Your task to perform on an android device: open app "NewsBreak: Local News & Alerts" (install if not already installed) Image 0: 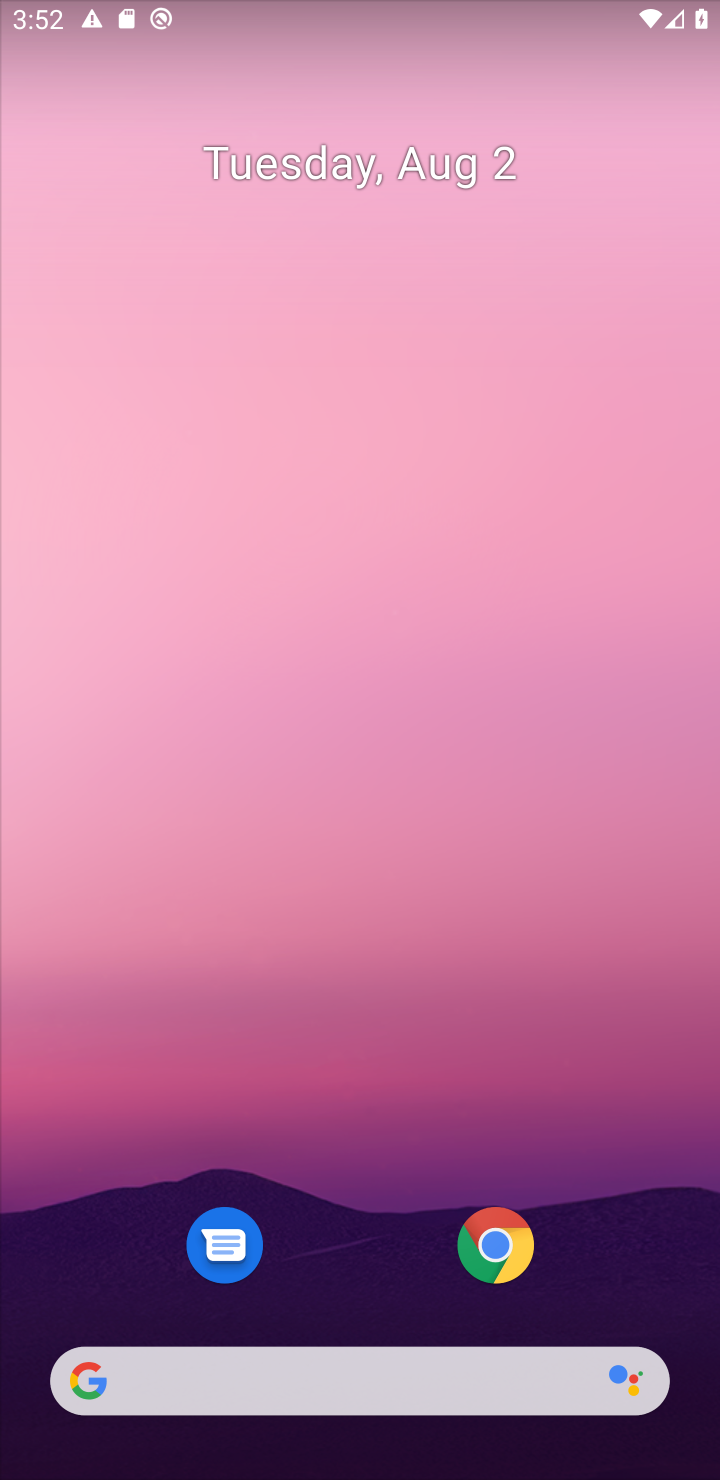
Step 0: drag from (372, 1265) to (420, 89)
Your task to perform on an android device: open app "NewsBreak: Local News & Alerts" (install if not already installed) Image 1: 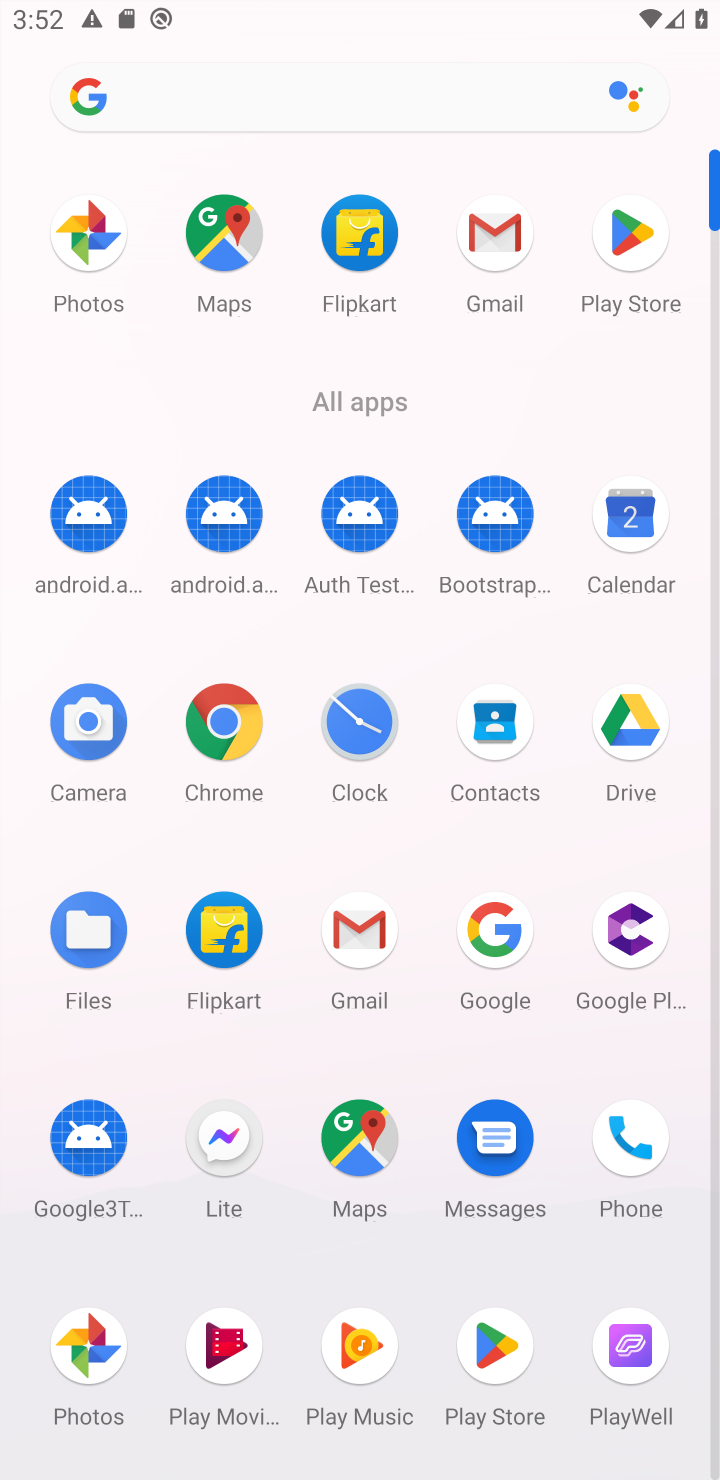
Step 1: click (610, 232)
Your task to perform on an android device: open app "NewsBreak: Local News & Alerts" (install if not already installed) Image 2: 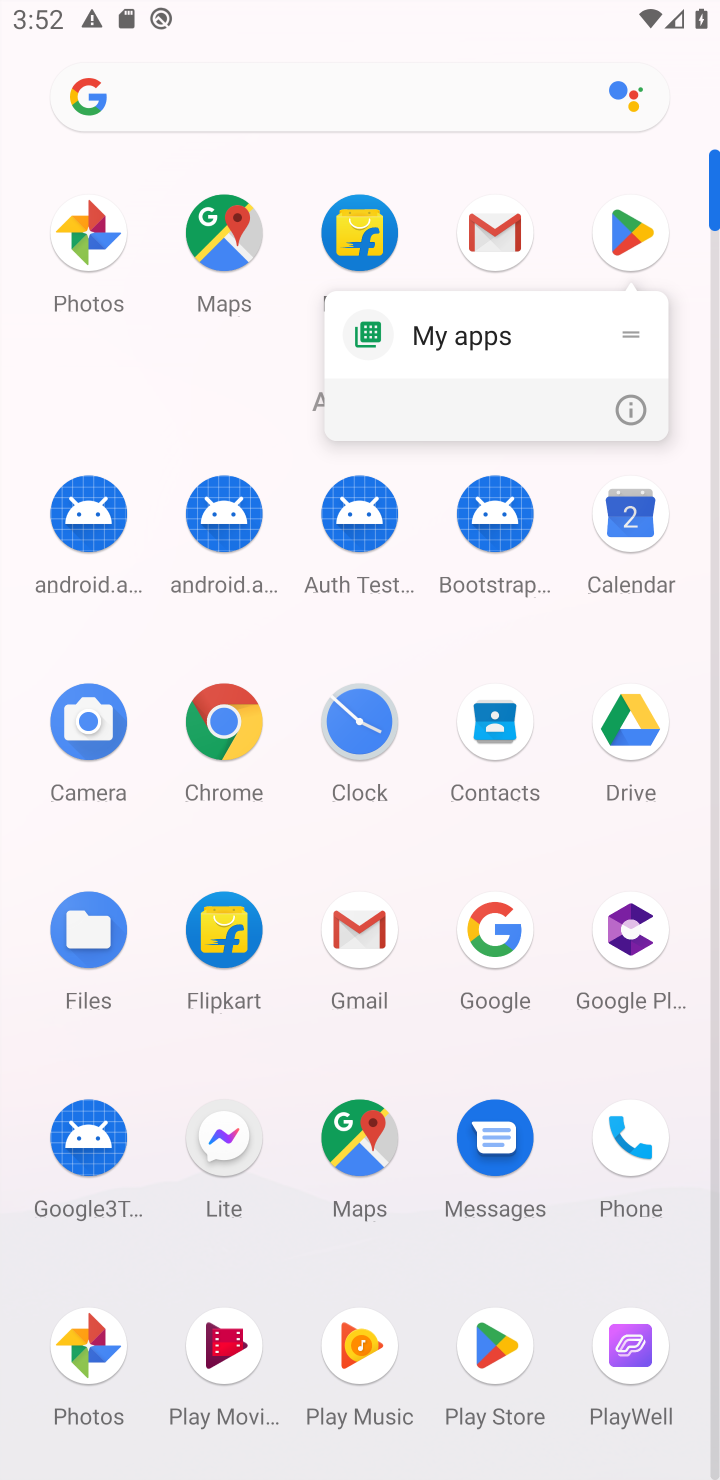
Step 2: click (615, 232)
Your task to perform on an android device: open app "NewsBreak: Local News & Alerts" (install if not already installed) Image 3: 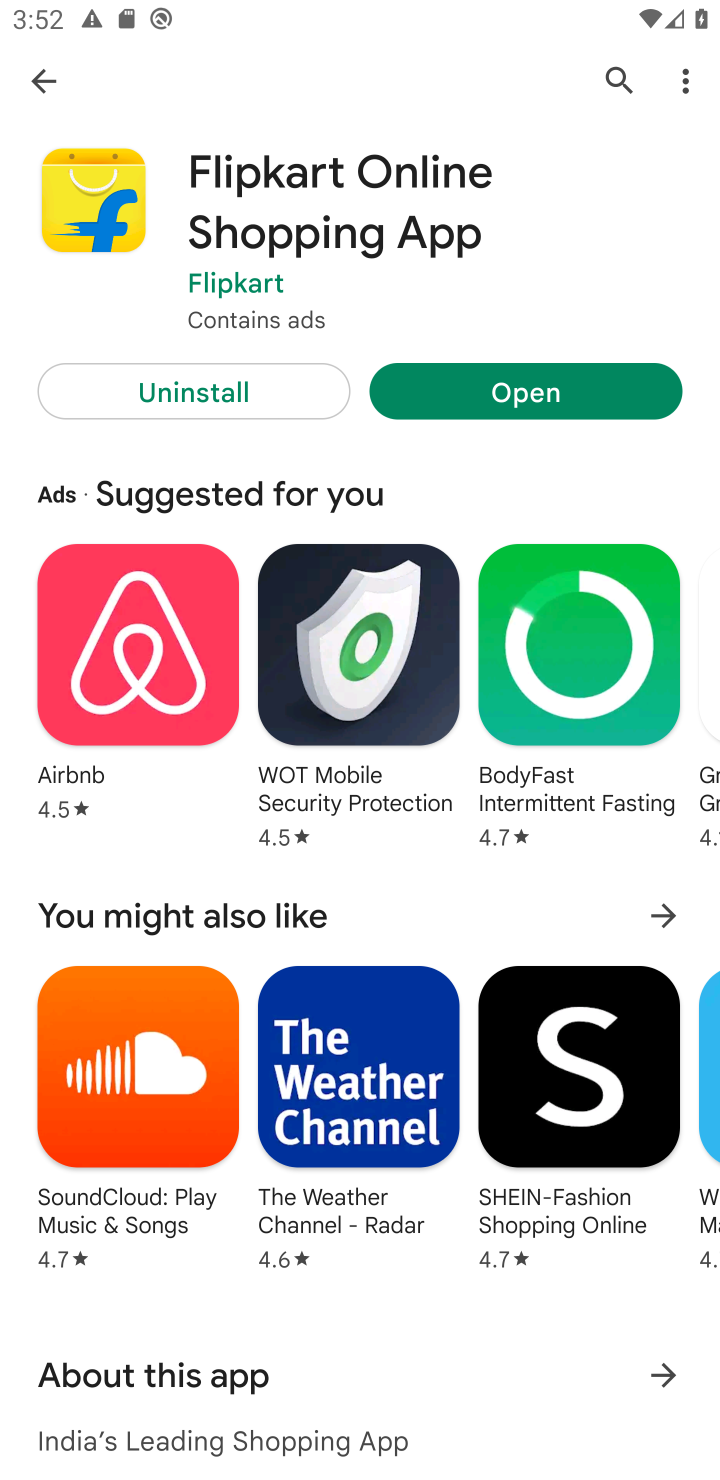
Step 3: click (606, 76)
Your task to perform on an android device: open app "NewsBreak: Local News & Alerts" (install if not already installed) Image 4: 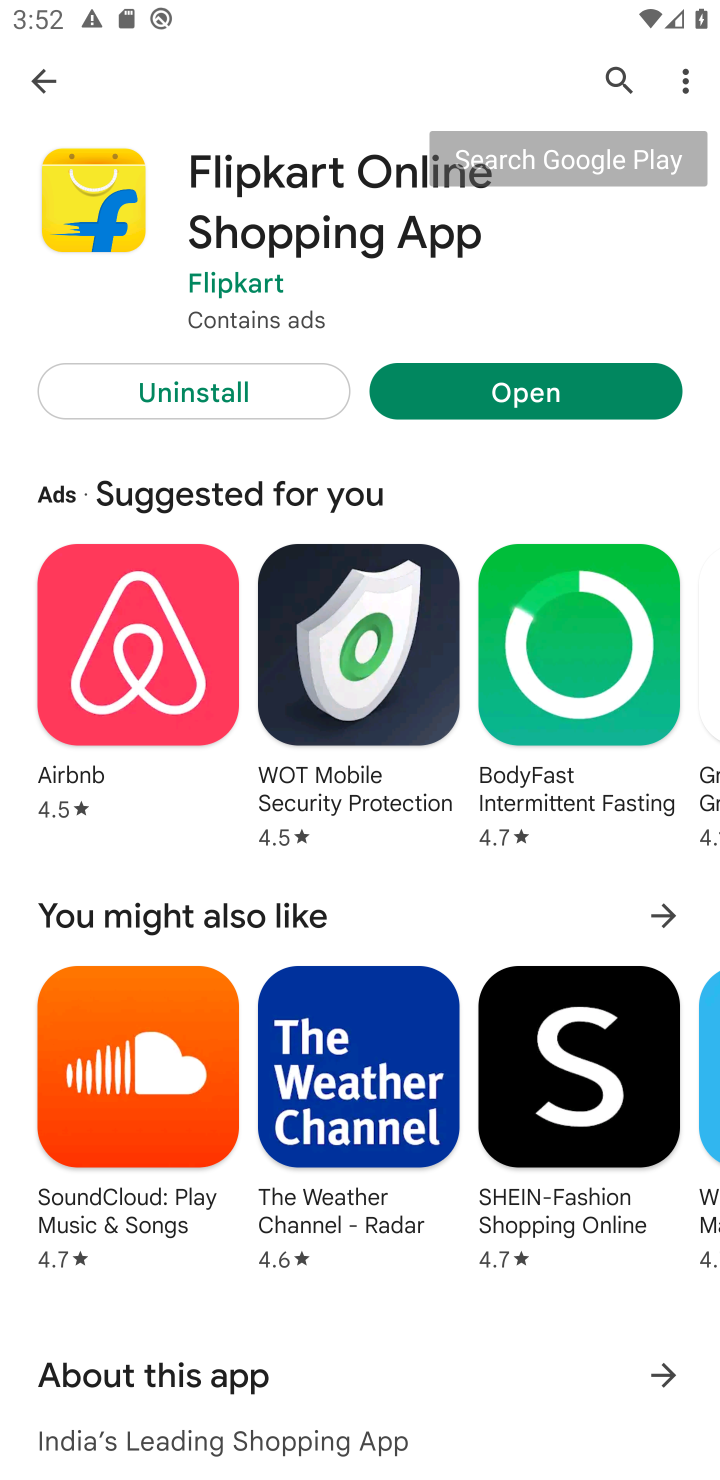
Step 4: click (610, 78)
Your task to perform on an android device: open app "NewsBreak: Local News & Alerts" (install if not already installed) Image 5: 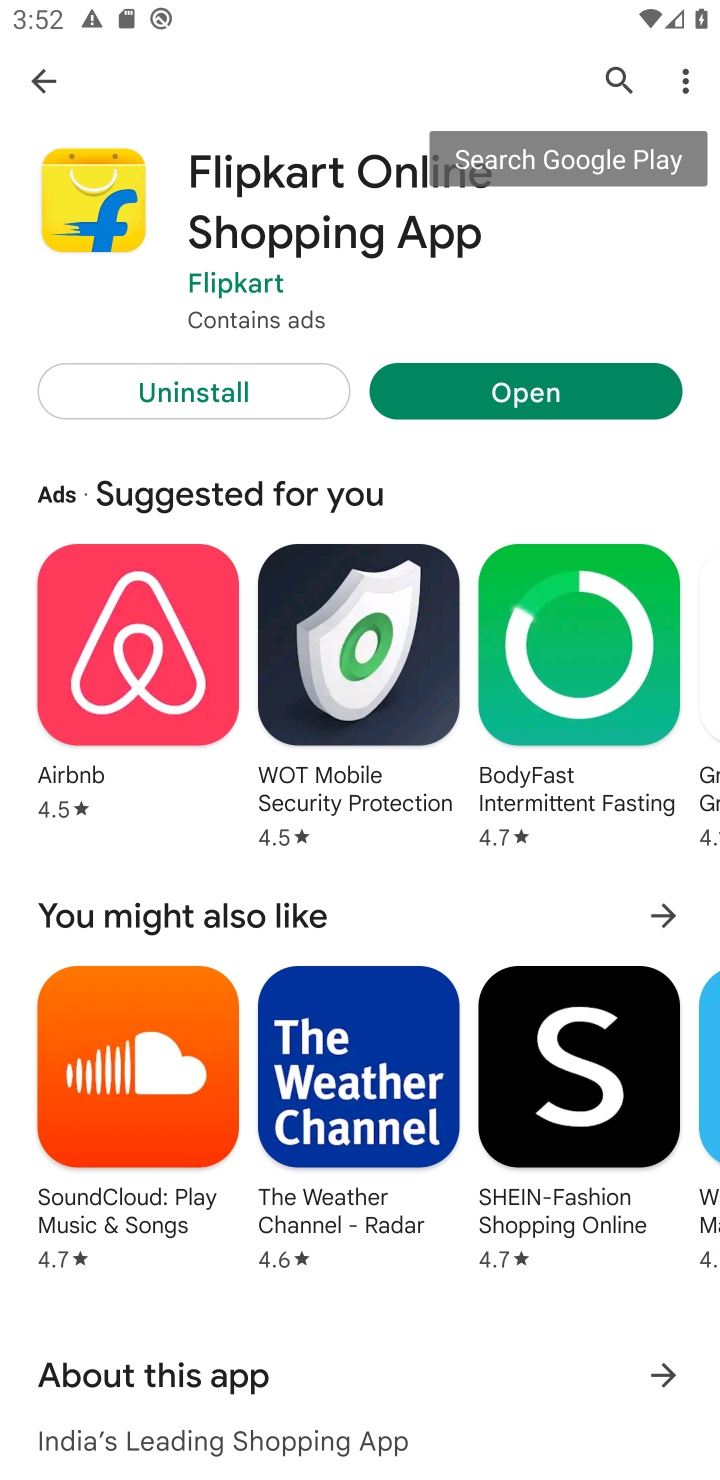
Step 5: click (619, 76)
Your task to perform on an android device: open app "NewsBreak: Local News & Alerts" (install if not already installed) Image 6: 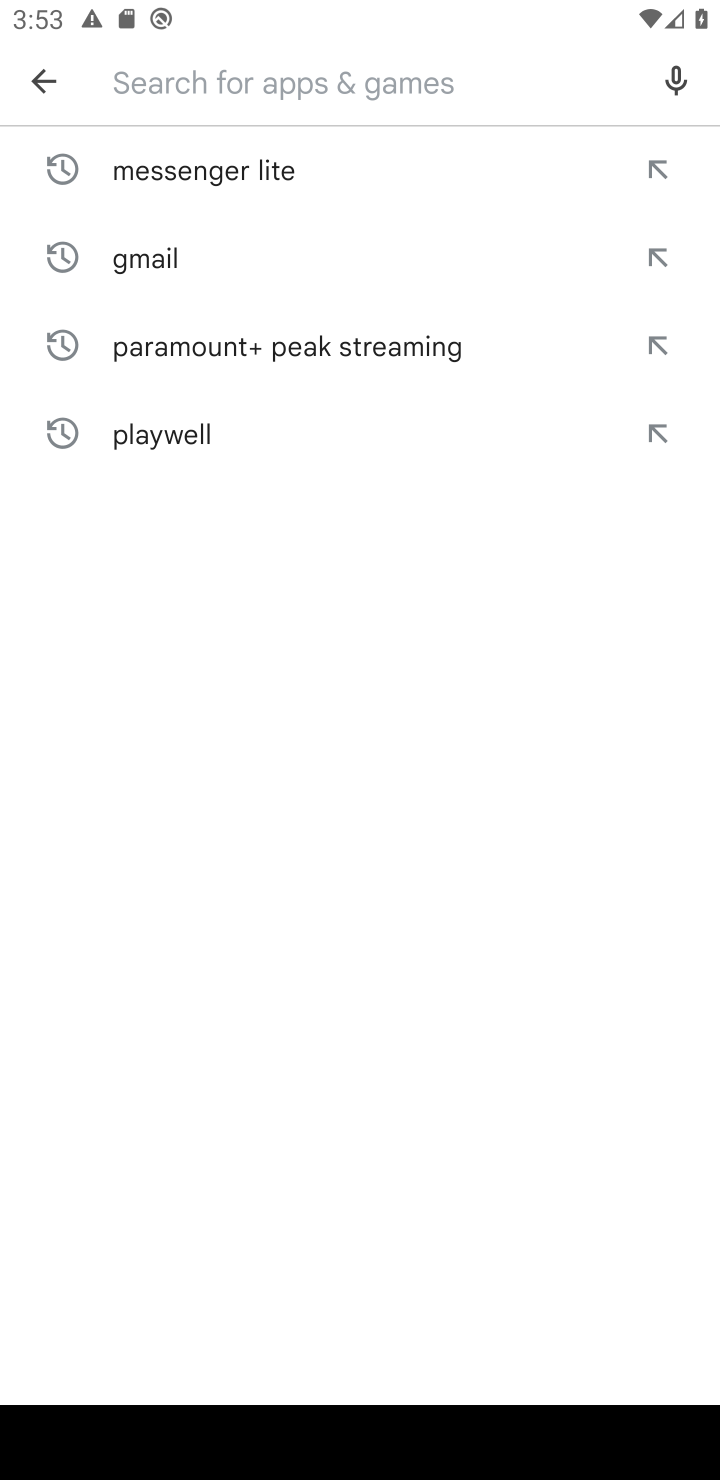
Step 6: type "NewsBreak: Local News & Alerts"
Your task to perform on an android device: open app "NewsBreak: Local News & Alerts" (install if not already installed) Image 7: 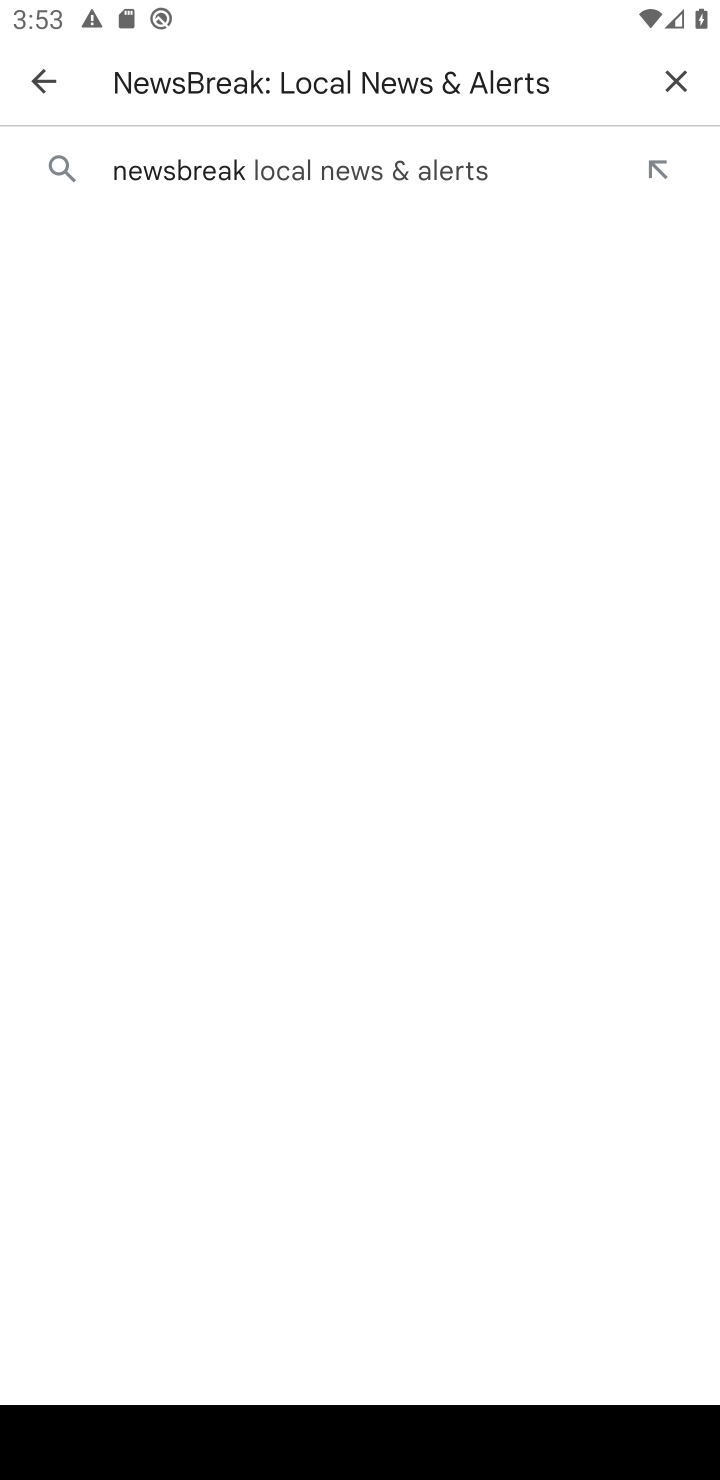
Step 7: click (261, 167)
Your task to perform on an android device: open app "NewsBreak: Local News & Alerts" (install if not already installed) Image 8: 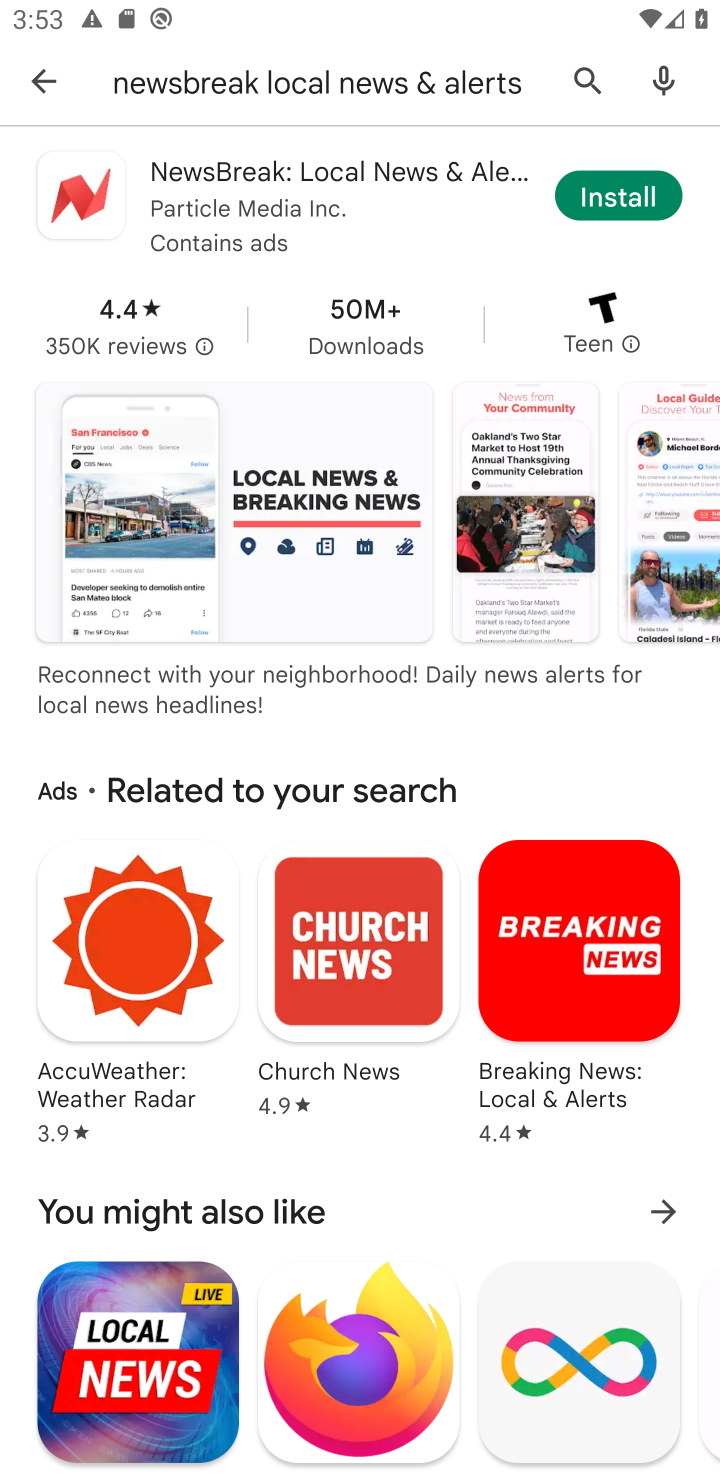
Step 8: click (617, 201)
Your task to perform on an android device: open app "NewsBreak: Local News & Alerts" (install if not already installed) Image 9: 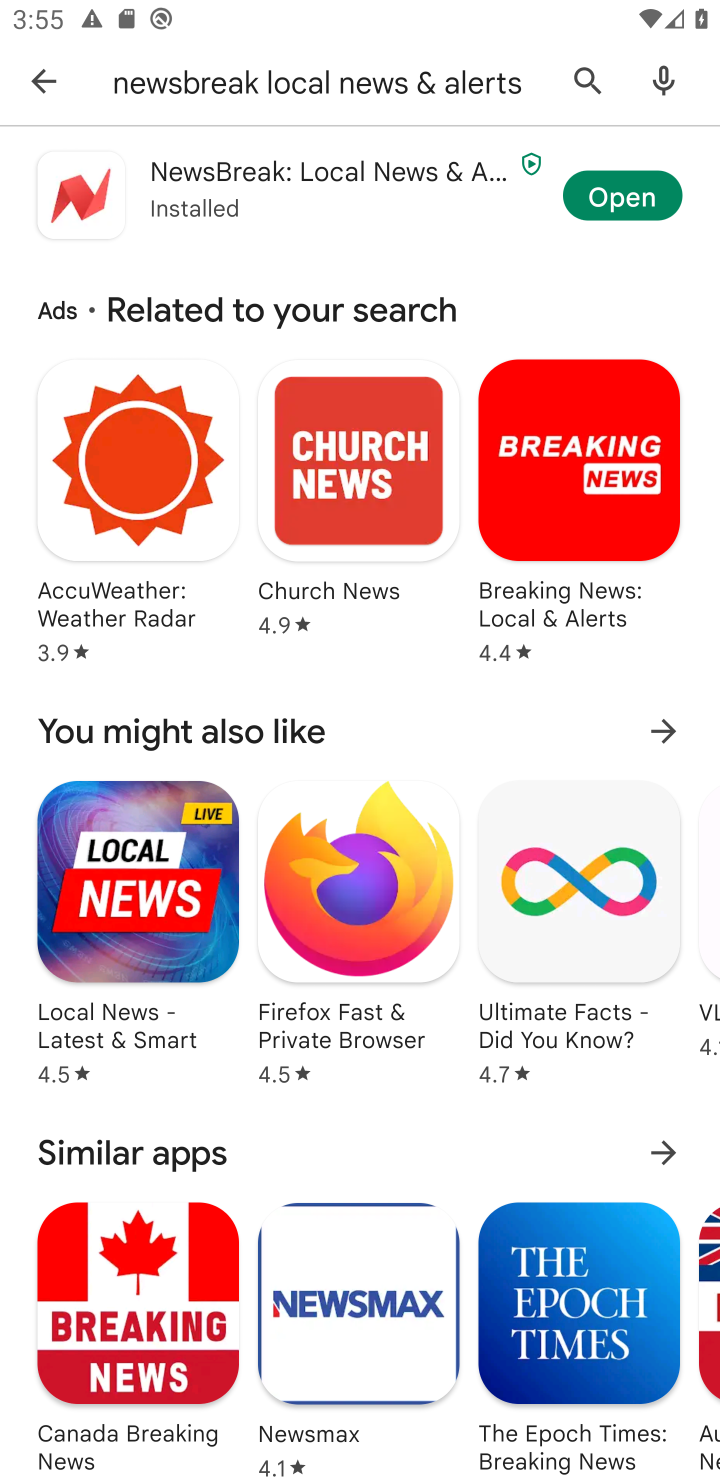
Step 9: click (617, 201)
Your task to perform on an android device: open app "NewsBreak: Local News & Alerts" (install if not already installed) Image 10: 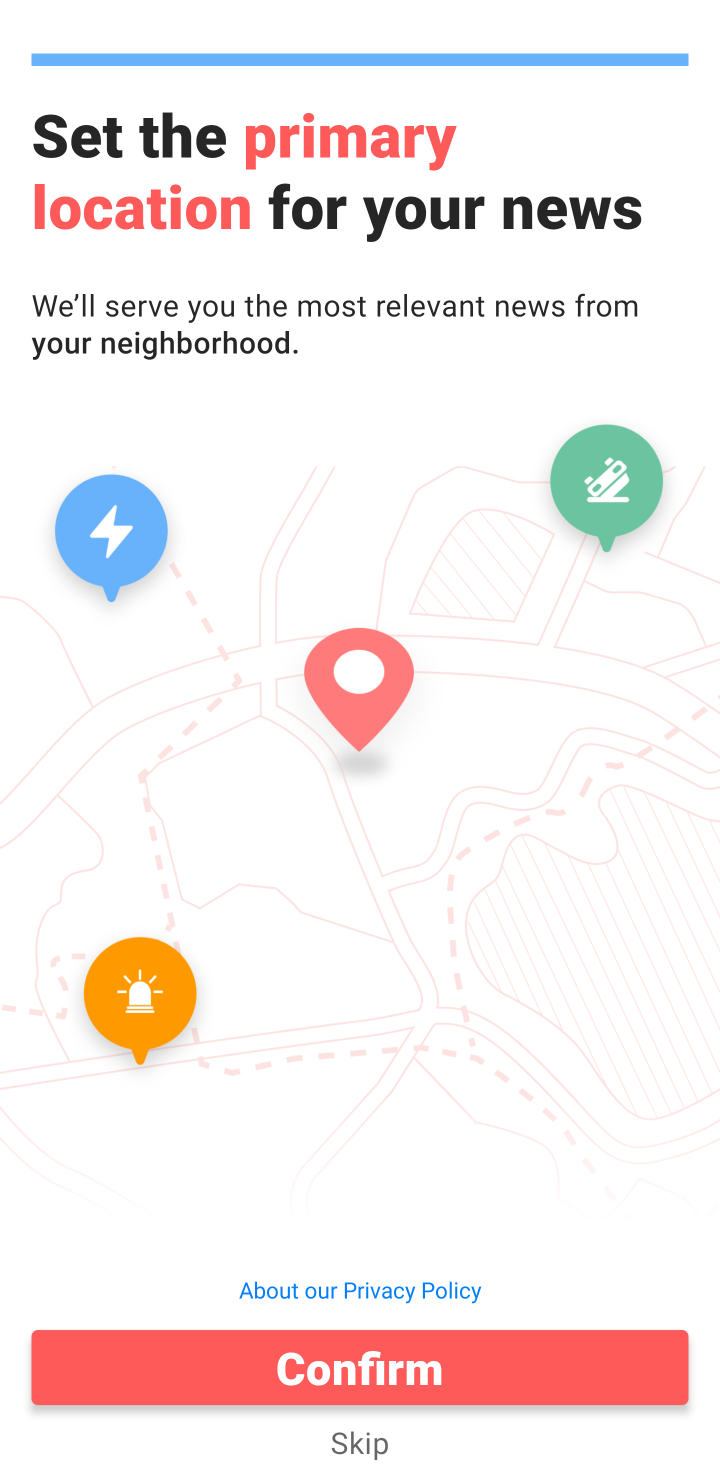
Step 10: task complete